Your task to perform on an android device: Open display settings Image 0: 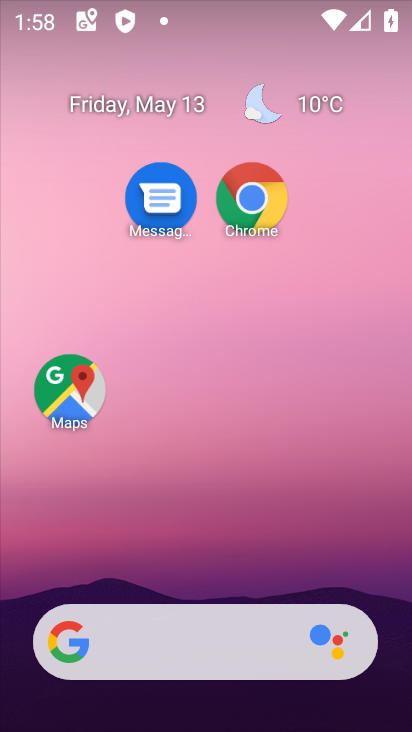
Step 0: drag from (233, 578) to (183, 22)
Your task to perform on an android device: Open display settings Image 1: 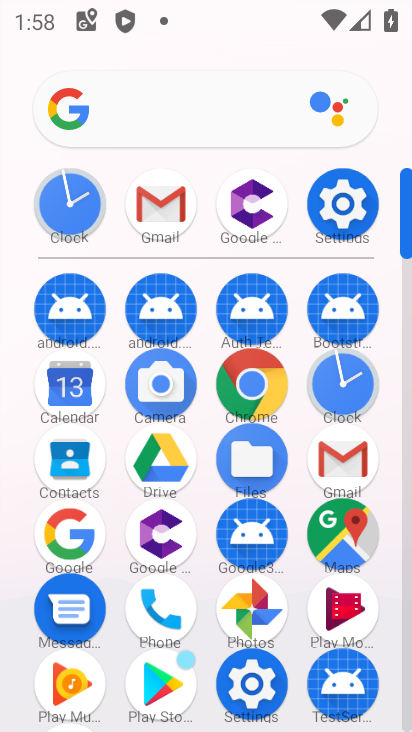
Step 1: click (353, 216)
Your task to perform on an android device: Open display settings Image 2: 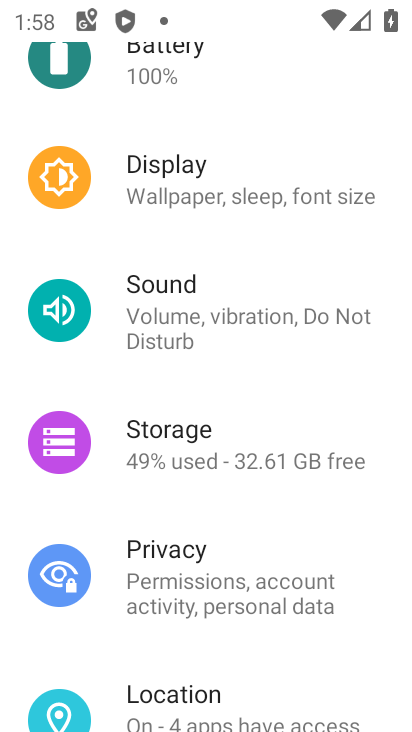
Step 2: click (174, 160)
Your task to perform on an android device: Open display settings Image 3: 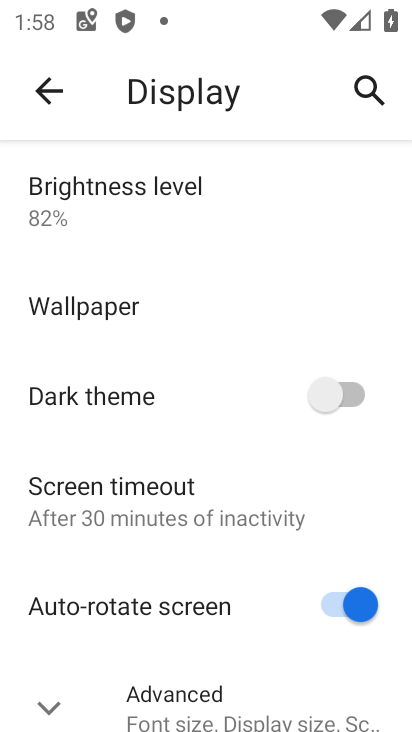
Step 3: task complete